Your task to perform on an android device: remove spam from my inbox in the gmail app Image 0: 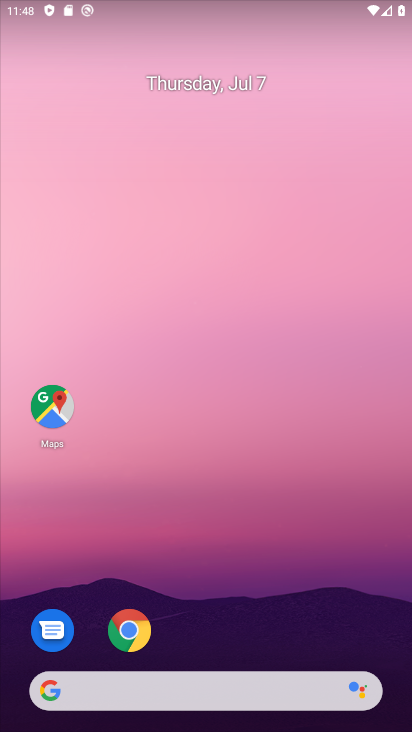
Step 0: drag from (391, 680) to (265, 20)
Your task to perform on an android device: remove spam from my inbox in the gmail app Image 1: 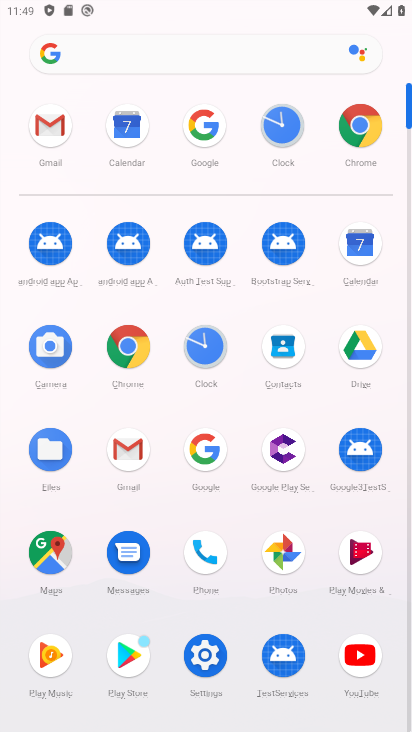
Step 1: click (120, 443)
Your task to perform on an android device: remove spam from my inbox in the gmail app Image 2: 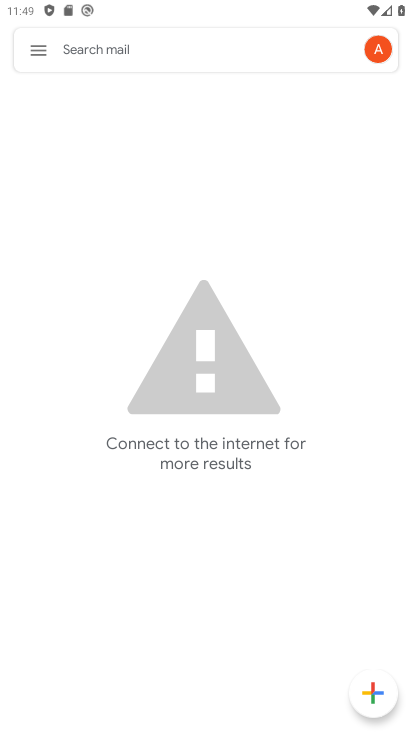
Step 2: task complete